Your task to perform on an android device: Open sound settings Image 0: 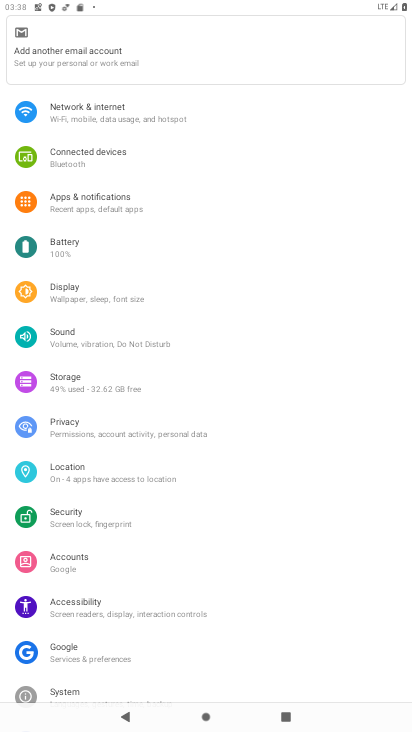
Step 0: click (54, 336)
Your task to perform on an android device: Open sound settings Image 1: 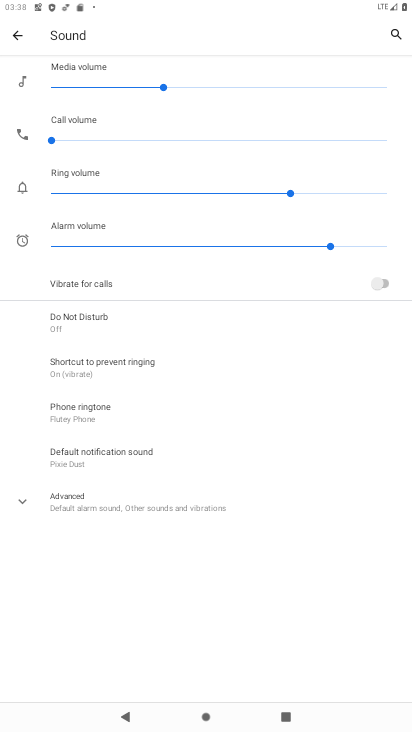
Step 1: task complete